Your task to perform on an android device: turn pop-ups on in chrome Image 0: 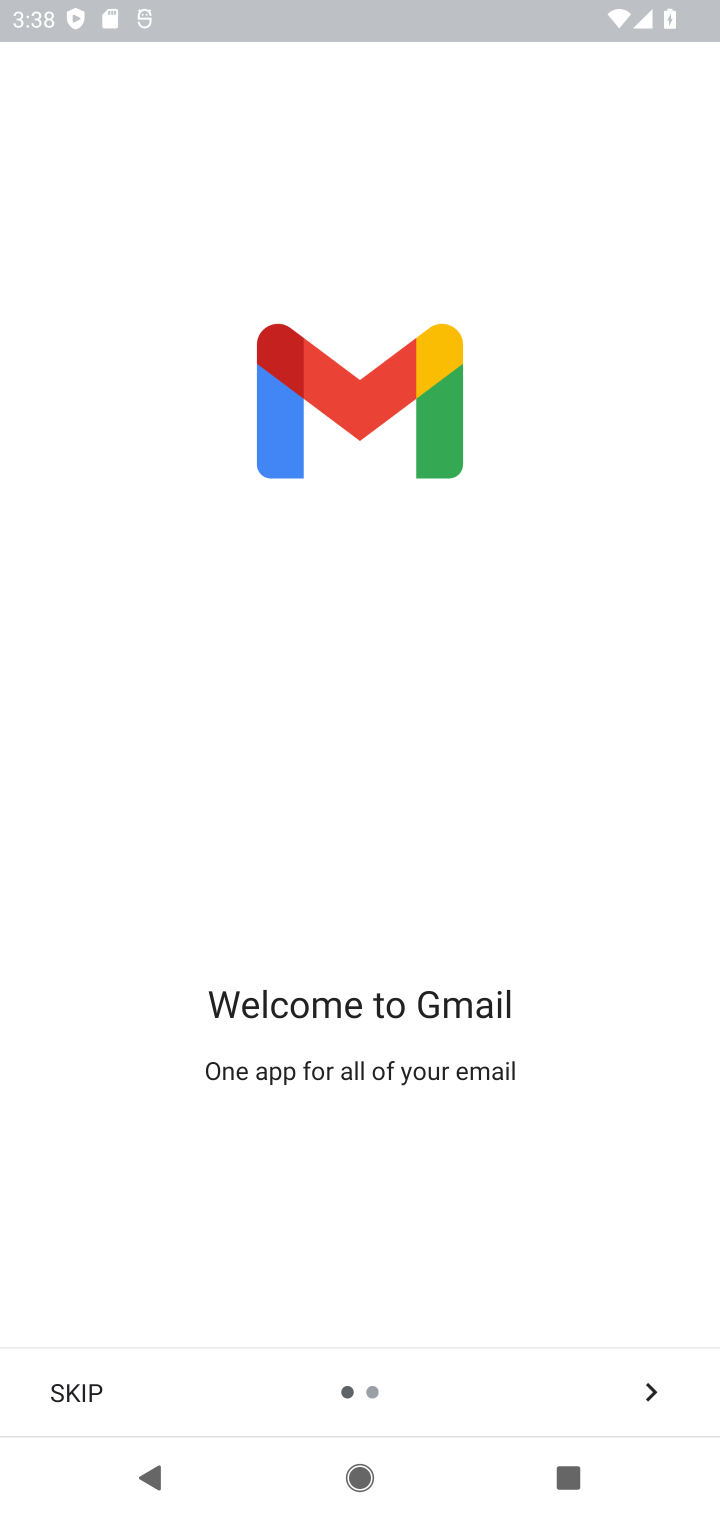
Step 0: press home button
Your task to perform on an android device: turn pop-ups on in chrome Image 1: 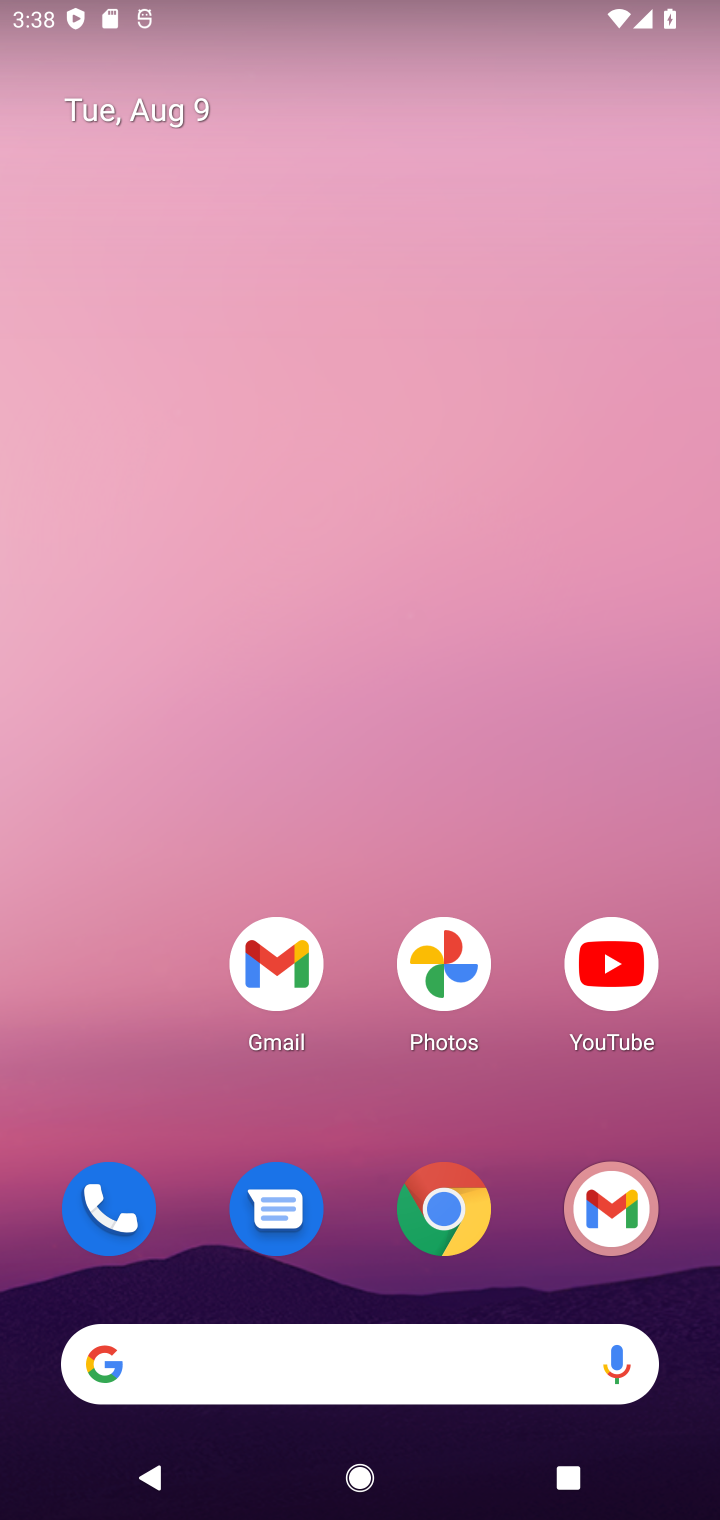
Step 1: click (445, 1208)
Your task to perform on an android device: turn pop-ups on in chrome Image 2: 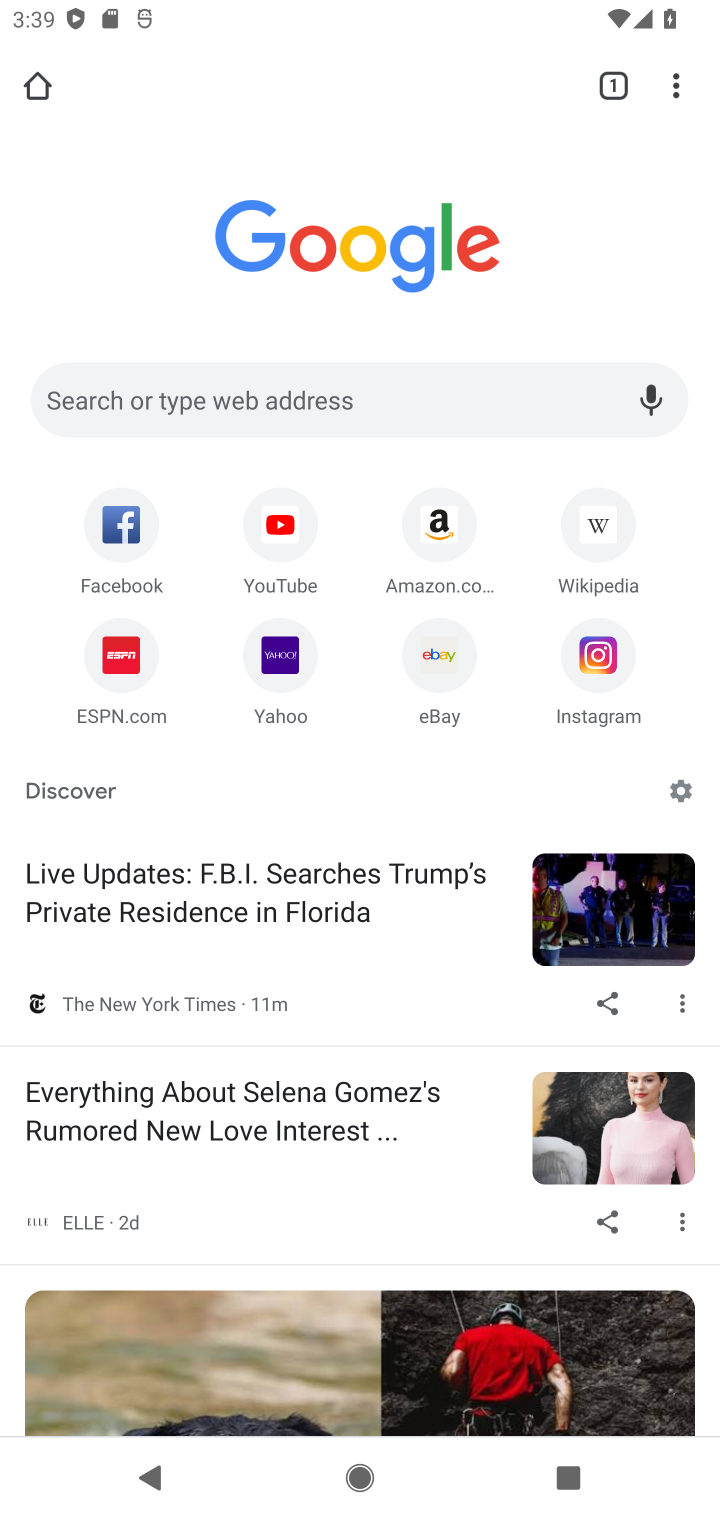
Step 2: click (676, 85)
Your task to perform on an android device: turn pop-ups on in chrome Image 3: 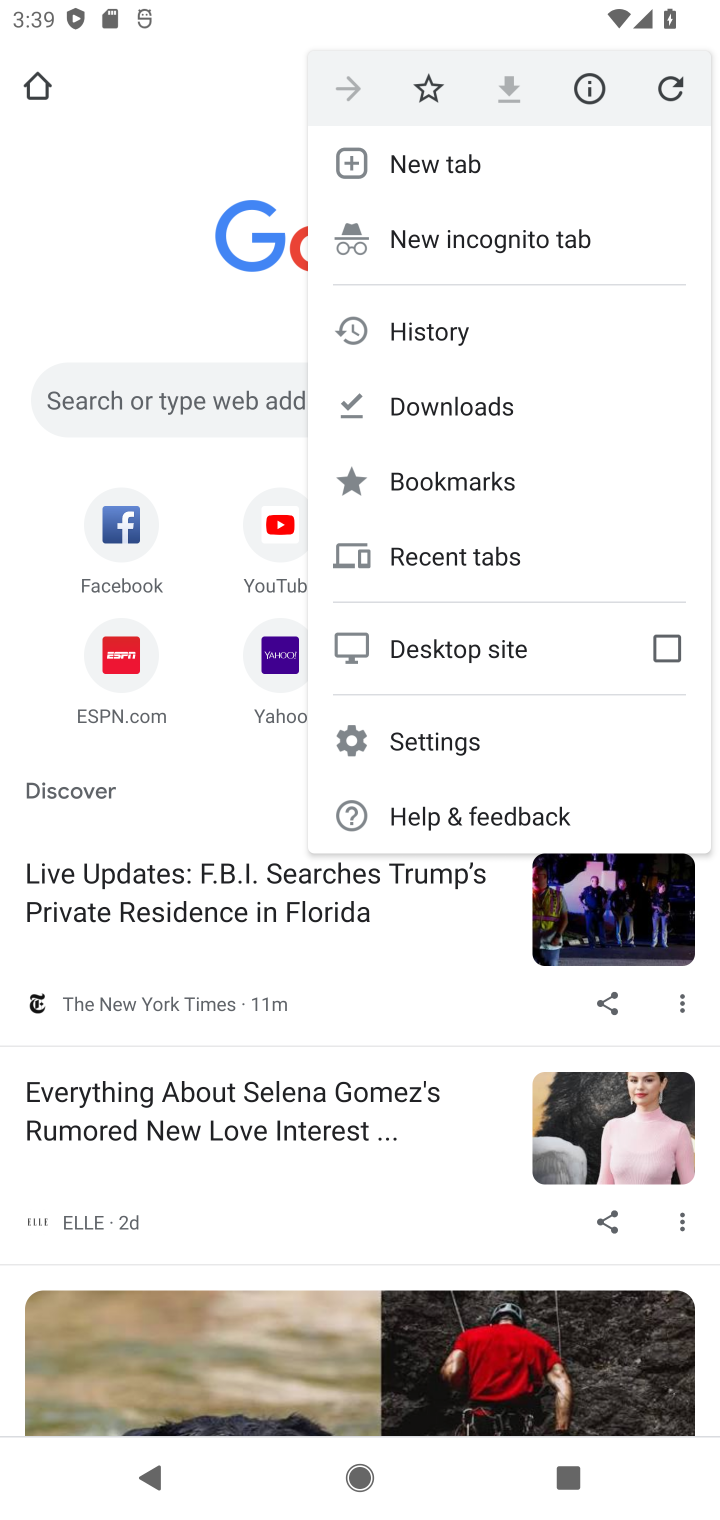
Step 3: click (439, 723)
Your task to perform on an android device: turn pop-ups on in chrome Image 4: 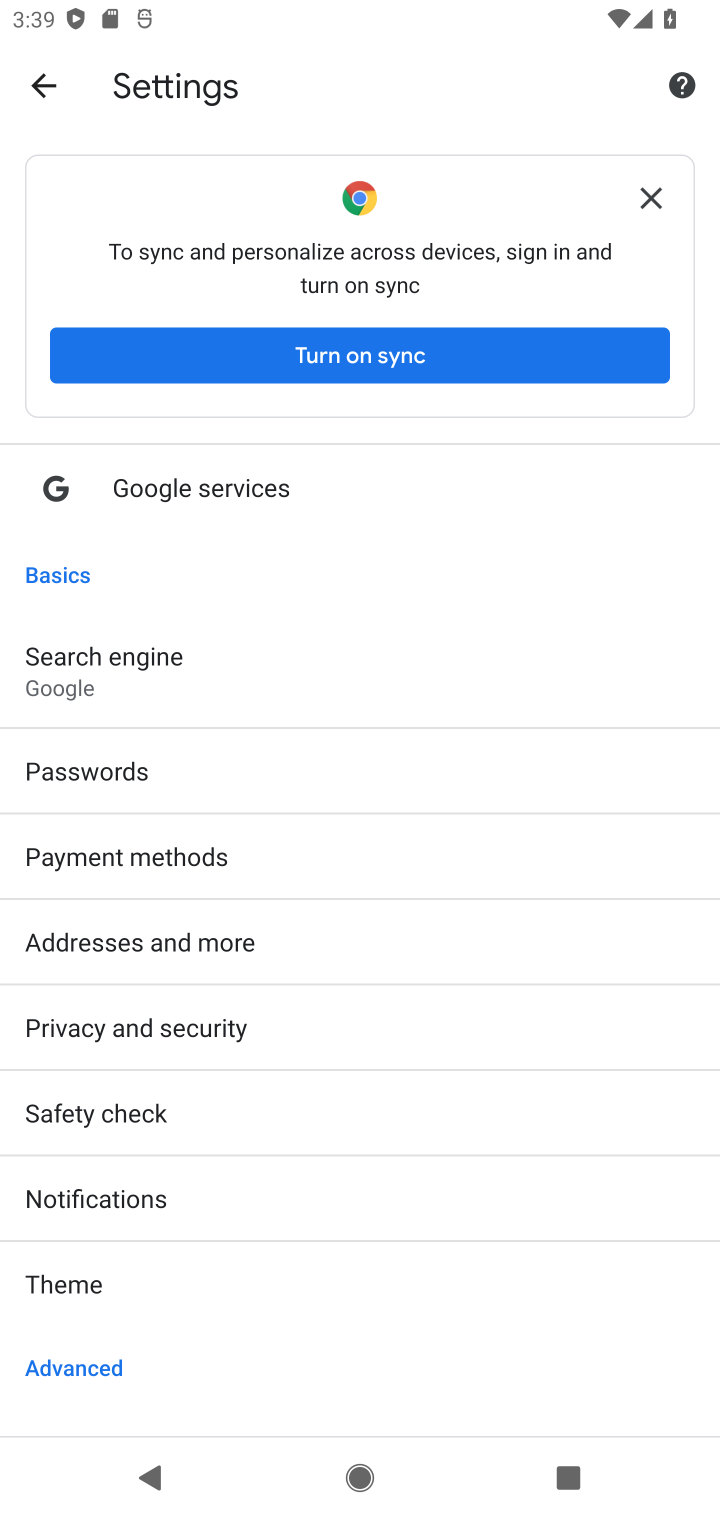
Step 4: drag from (294, 1235) to (207, 566)
Your task to perform on an android device: turn pop-ups on in chrome Image 5: 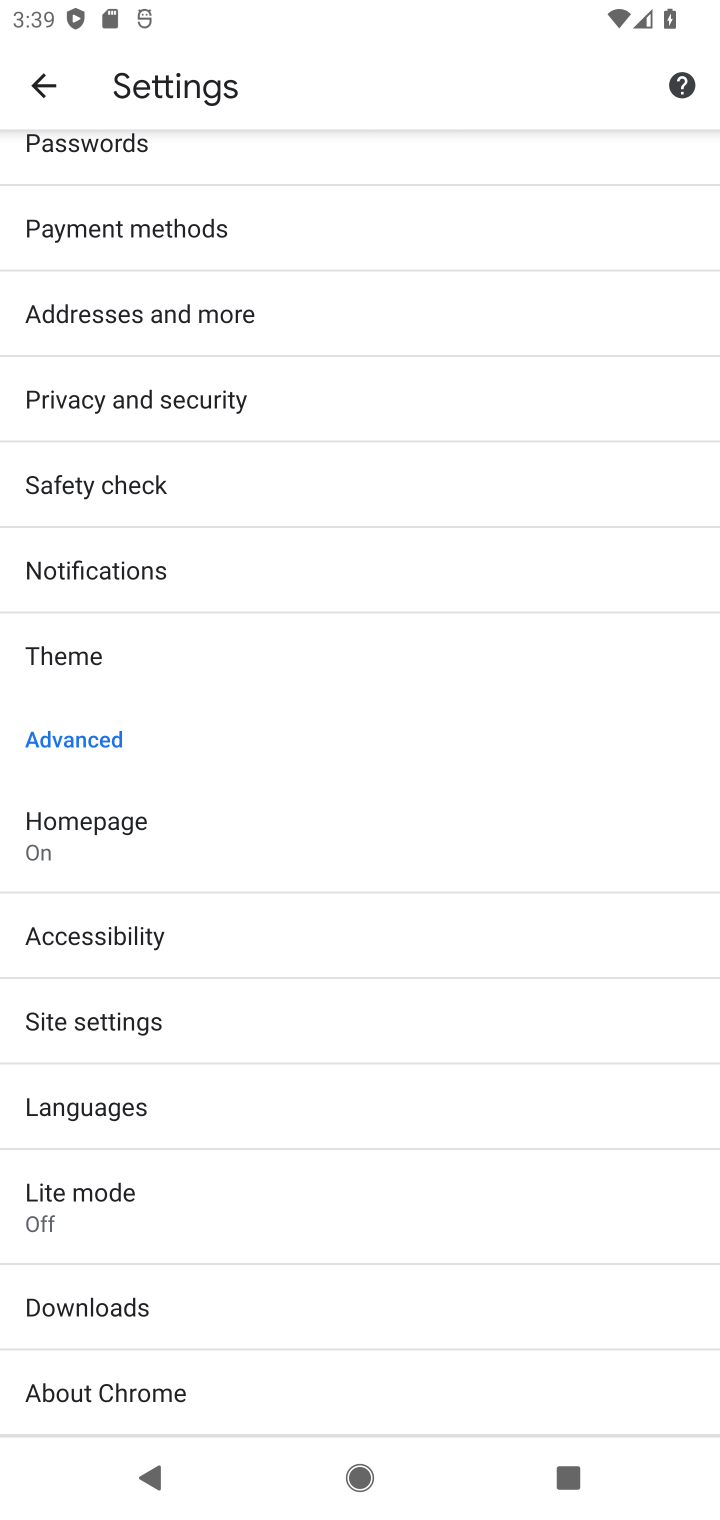
Step 5: click (114, 1019)
Your task to perform on an android device: turn pop-ups on in chrome Image 6: 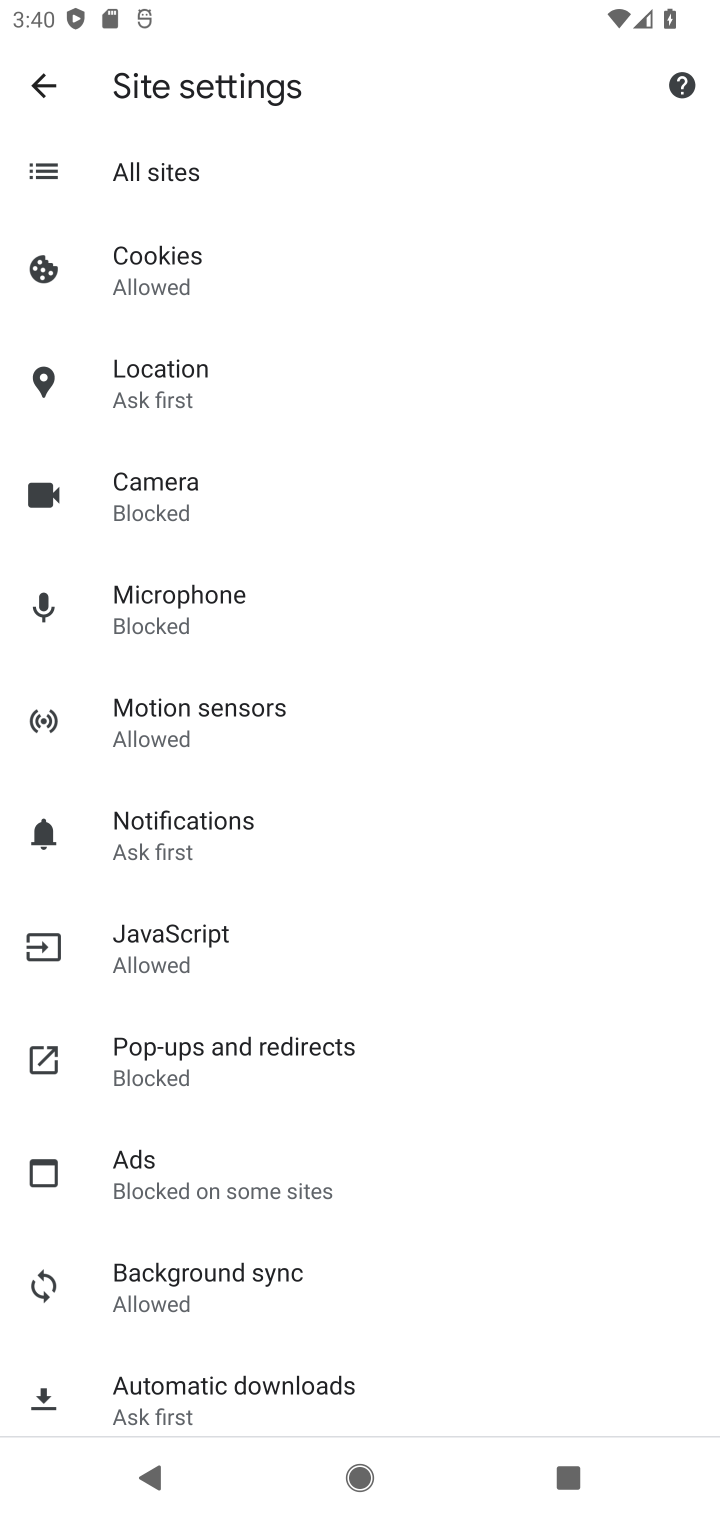
Step 6: click (242, 1039)
Your task to perform on an android device: turn pop-ups on in chrome Image 7: 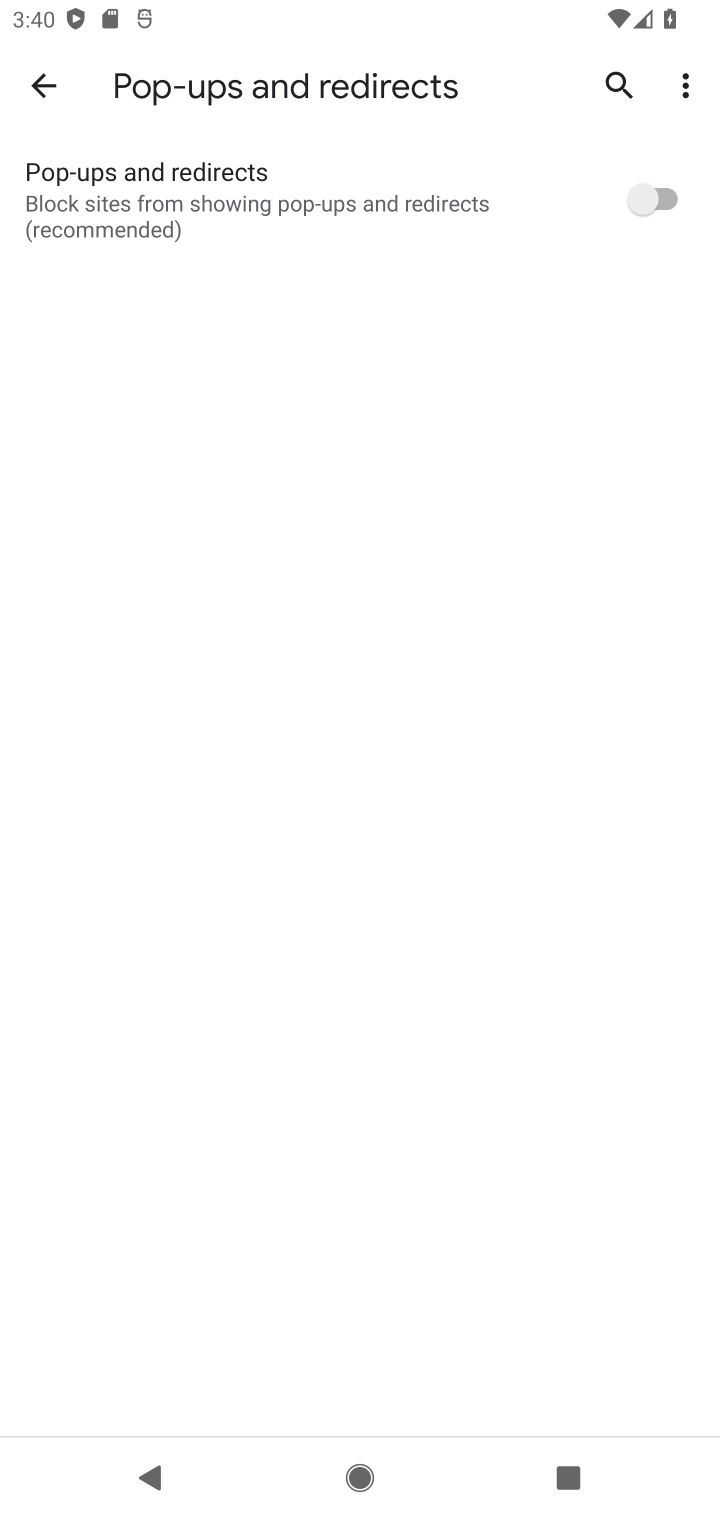
Step 7: click (630, 196)
Your task to perform on an android device: turn pop-ups on in chrome Image 8: 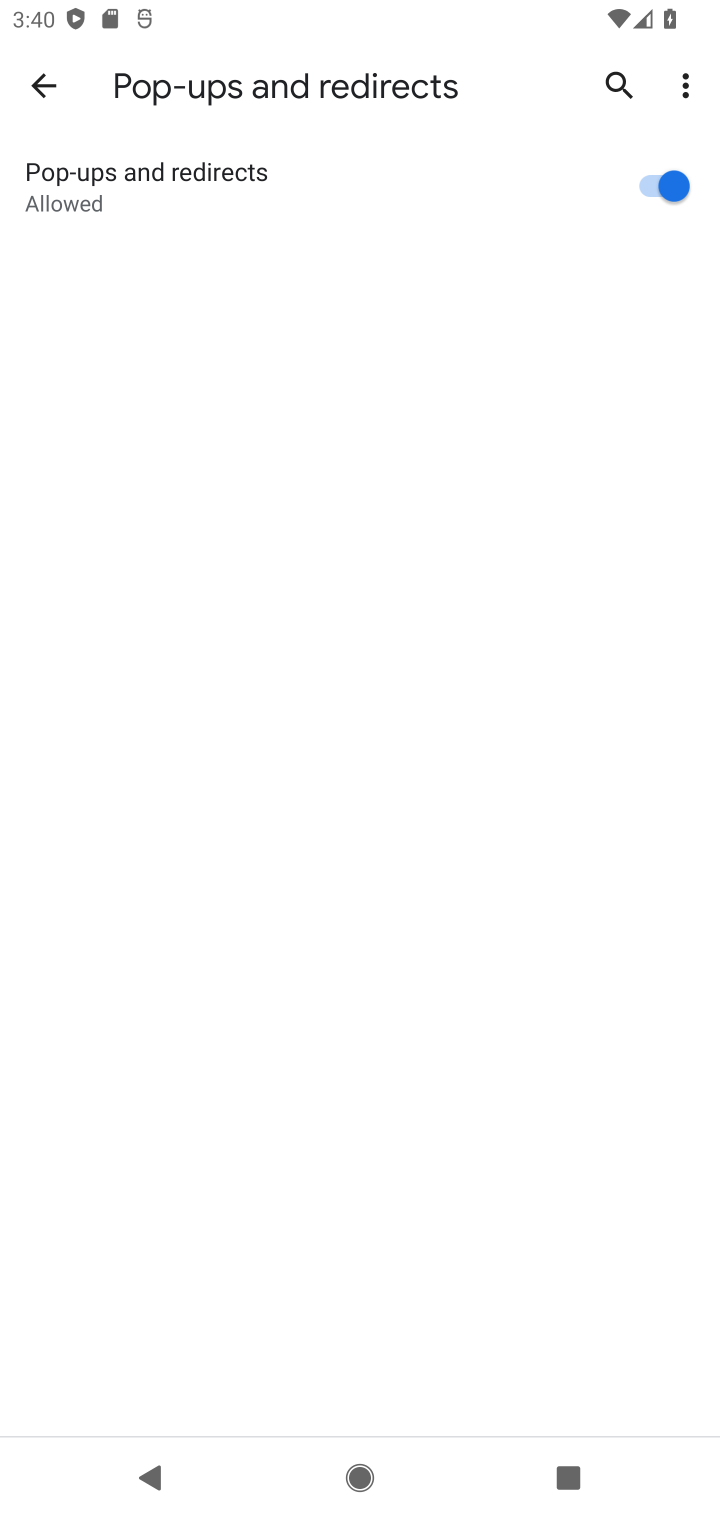
Step 8: task complete